Your task to perform on an android device: move an email to a new category in the gmail app Image 0: 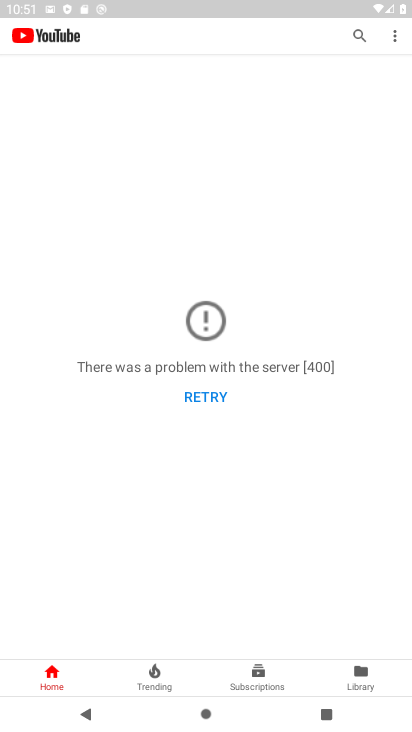
Step 0: press home button
Your task to perform on an android device: move an email to a new category in the gmail app Image 1: 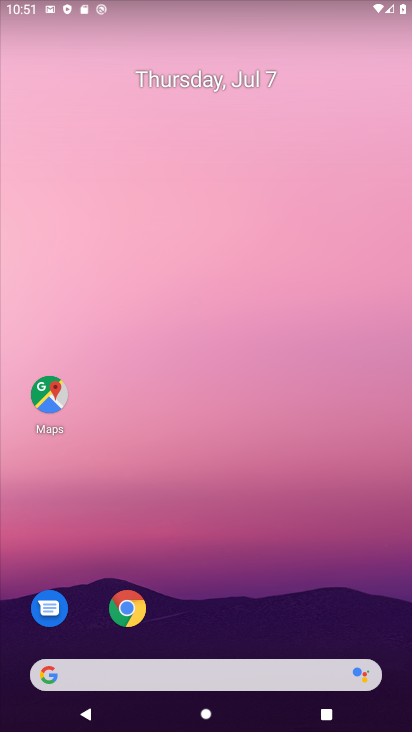
Step 1: drag from (77, 520) to (253, 14)
Your task to perform on an android device: move an email to a new category in the gmail app Image 2: 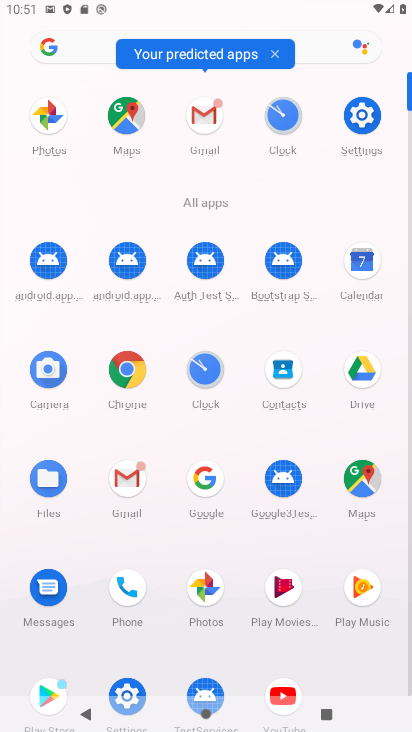
Step 2: click (134, 479)
Your task to perform on an android device: move an email to a new category in the gmail app Image 3: 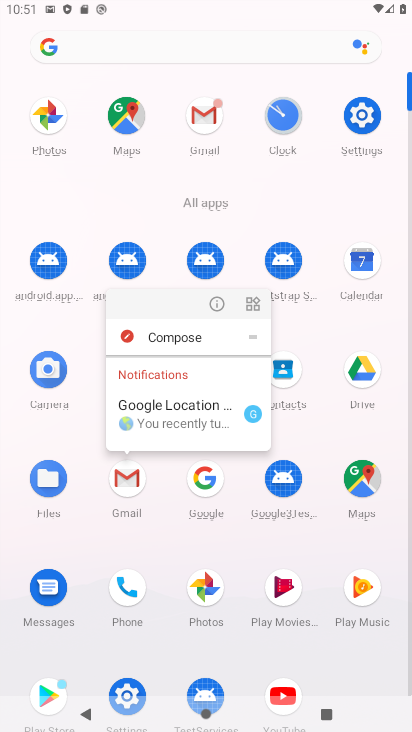
Step 3: click (126, 492)
Your task to perform on an android device: move an email to a new category in the gmail app Image 4: 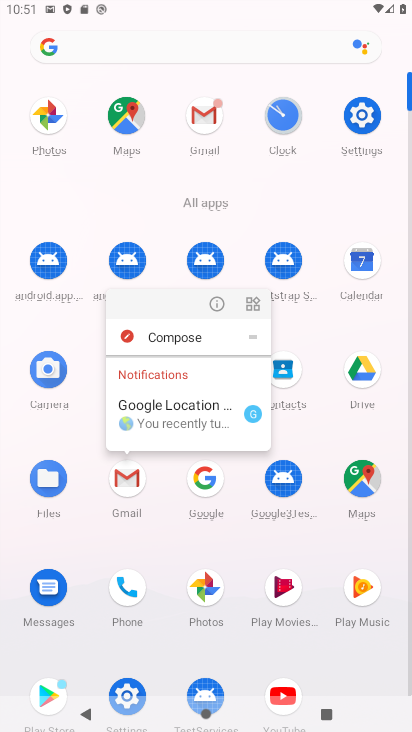
Step 4: click (126, 492)
Your task to perform on an android device: move an email to a new category in the gmail app Image 5: 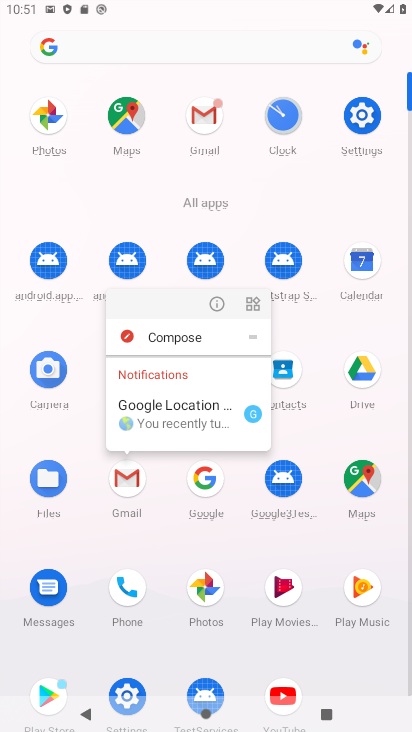
Step 5: click (121, 488)
Your task to perform on an android device: move an email to a new category in the gmail app Image 6: 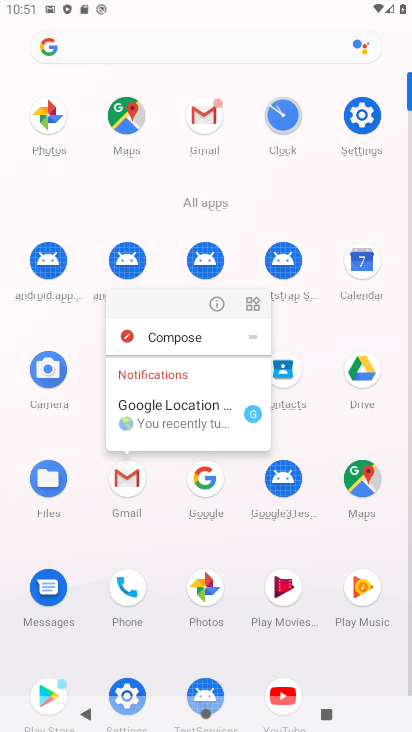
Step 6: task complete